Your task to perform on an android device: open sync settings in chrome Image 0: 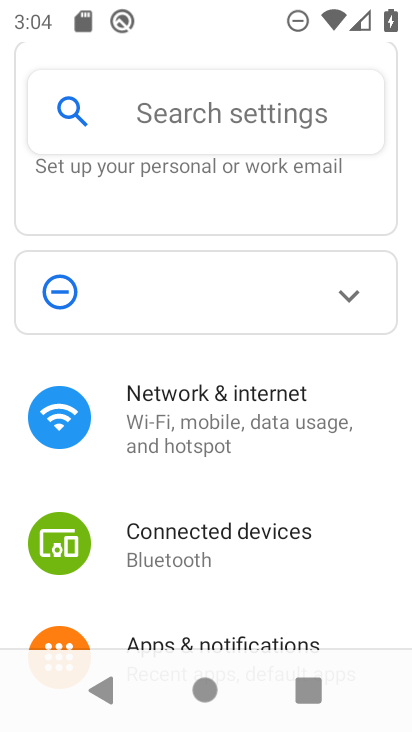
Step 0: press home button
Your task to perform on an android device: open sync settings in chrome Image 1: 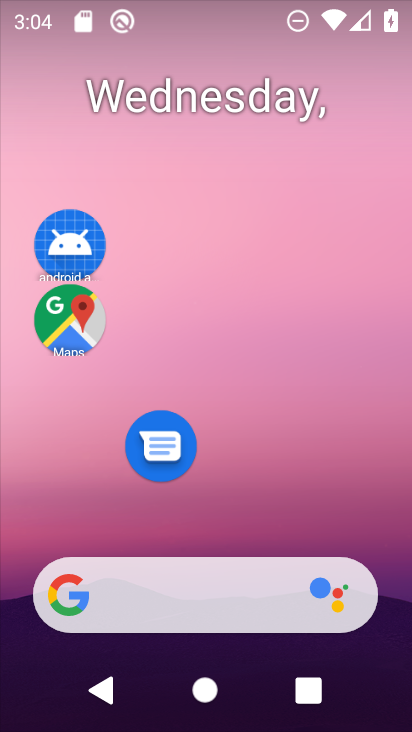
Step 1: drag from (278, 442) to (309, 50)
Your task to perform on an android device: open sync settings in chrome Image 2: 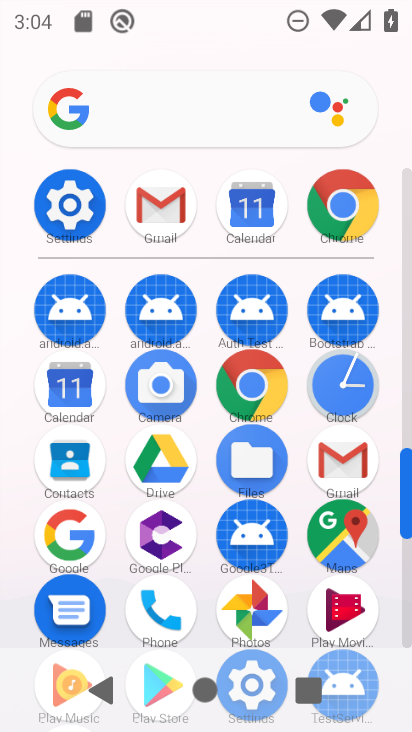
Step 2: click (324, 181)
Your task to perform on an android device: open sync settings in chrome Image 3: 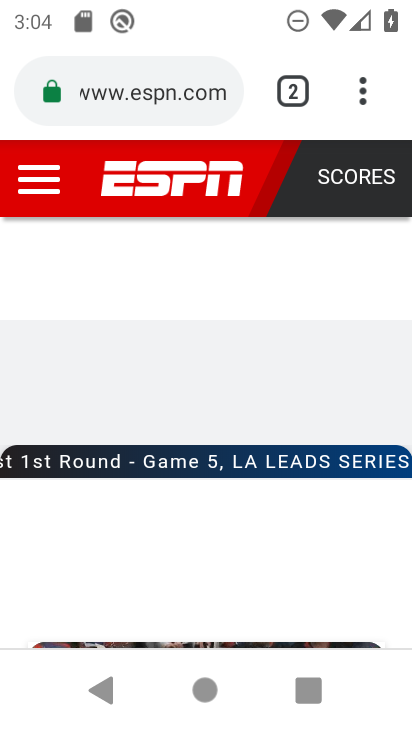
Step 3: click (363, 104)
Your task to perform on an android device: open sync settings in chrome Image 4: 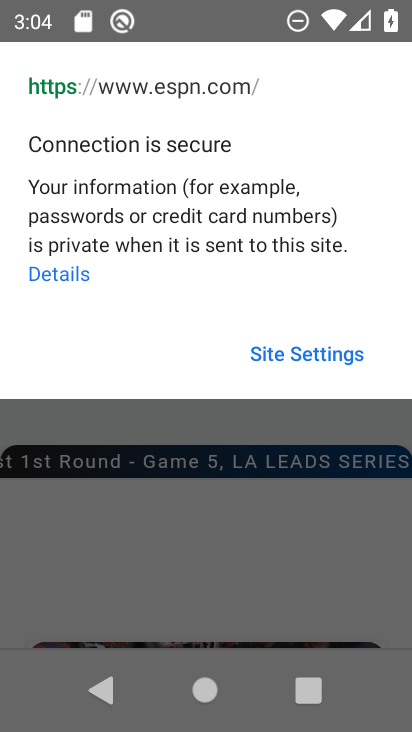
Step 4: click (300, 446)
Your task to perform on an android device: open sync settings in chrome Image 5: 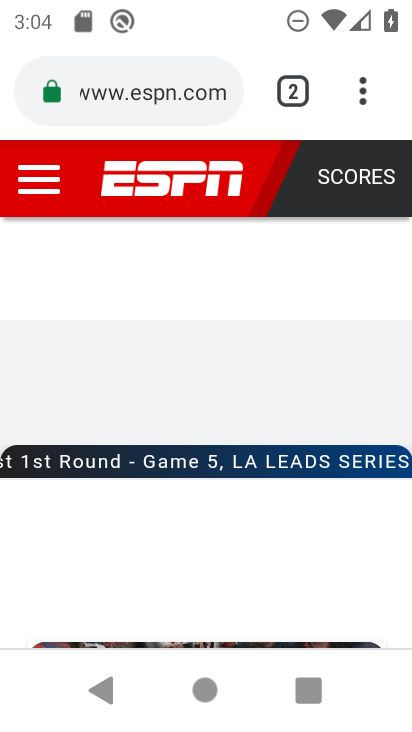
Step 5: click (371, 90)
Your task to perform on an android device: open sync settings in chrome Image 6: 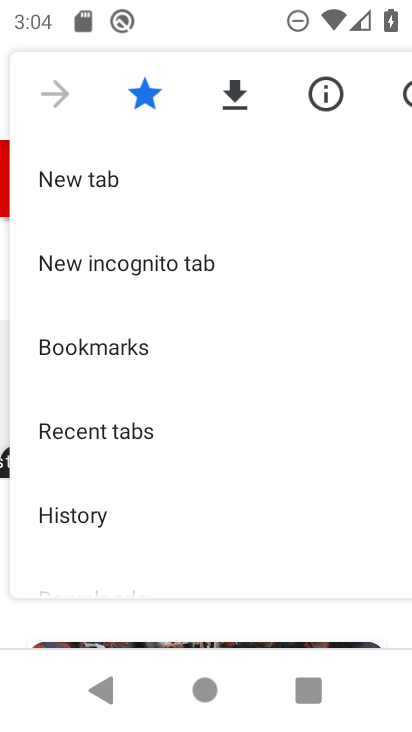
Step 6: drag from (258, 500) to (280, 206)
Your task to perform on an android device: open sync settings in chrome Image 7: 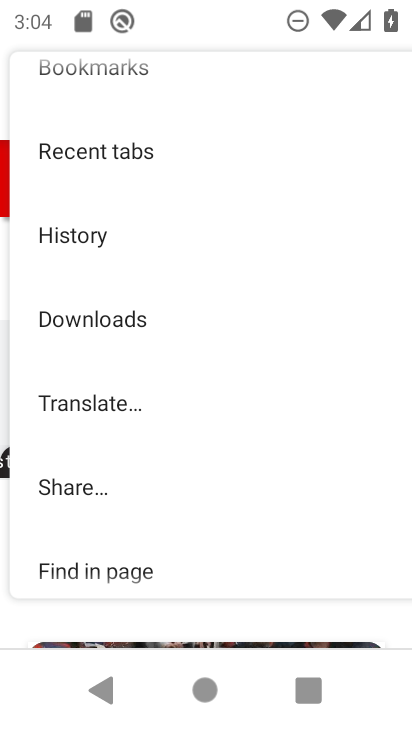
Step 7: drag from (212, 518) to (253, 265)
Your task to perform on an android device: open sync settings in chrome Image 8: 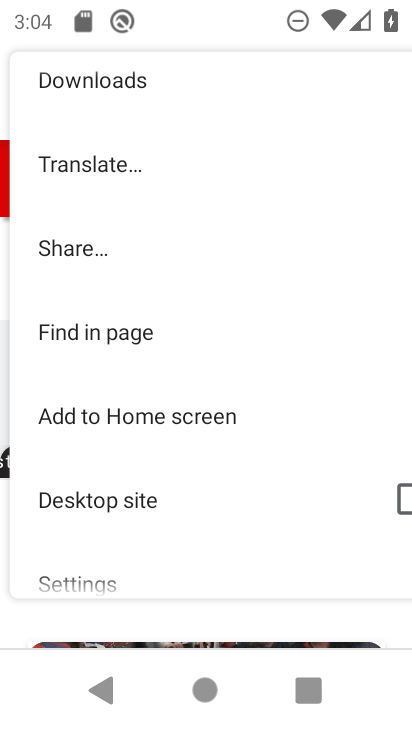
Step 8: drag from (212, 551) to (250, 353)
Your task to perform on an android device: open sync settings in chrome Image 9: 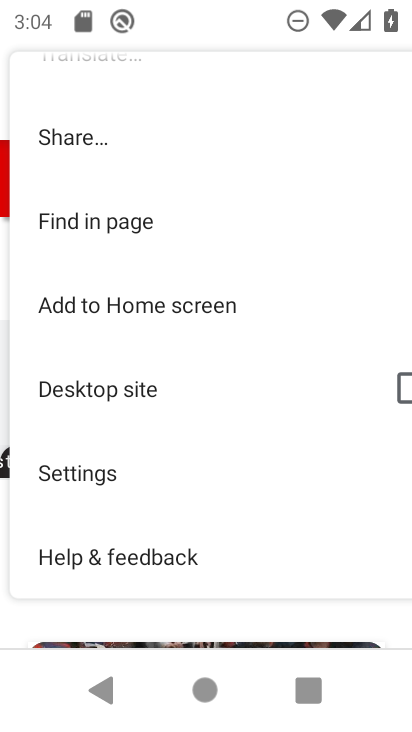
Step 9: click (198, 446)
Your task to perform on an android device: open sync settings in chrome Image 10: 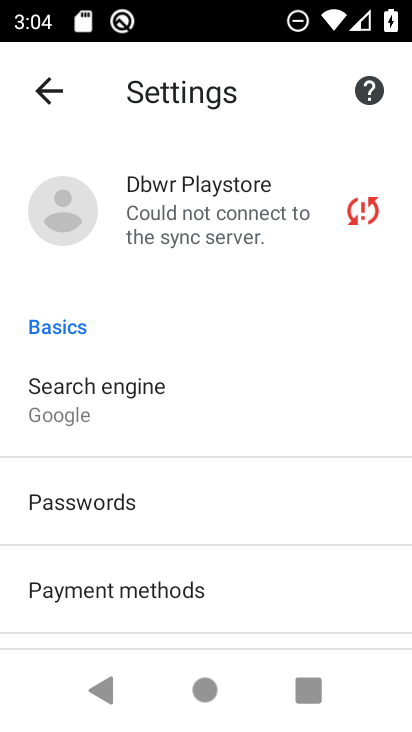
Step 10: click (280, 230)
Your task to perform on an android device: open sync settings in chrome Image 11: 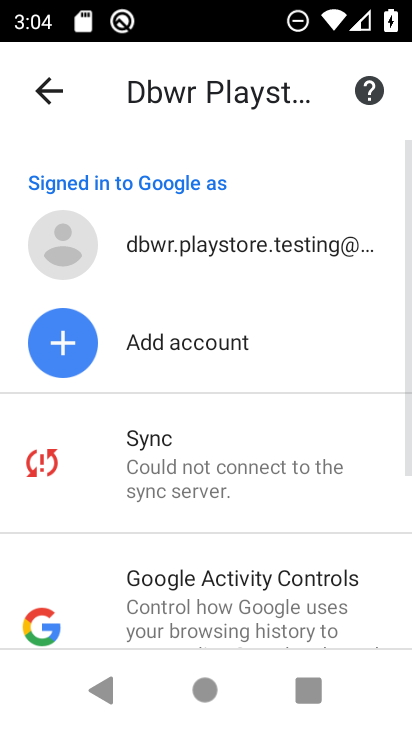
Step 11: click (259, 479)
Your task to perform on an android device: open sync settings in chrome Image 12: 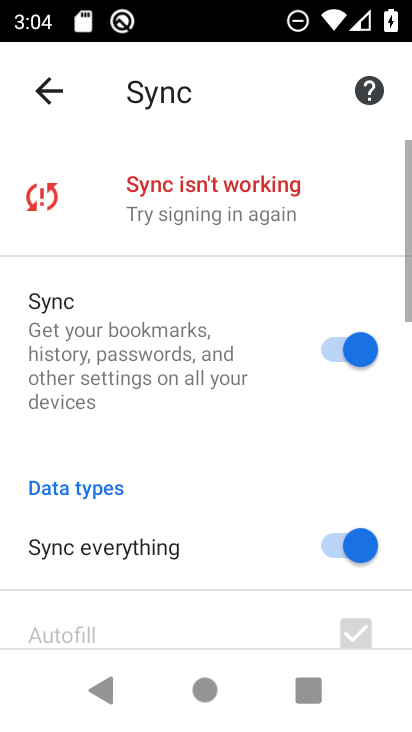
Step 12: task complete